Your task to perform on an android device: open app "Firefox Browser" Image 0: 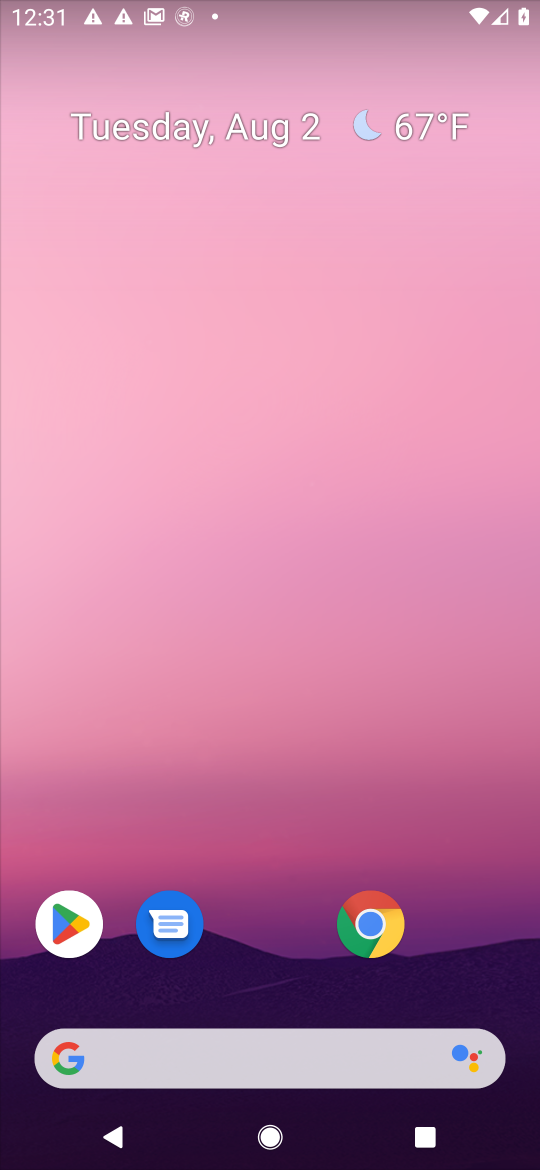
Step 0: press home button
Your task to perform on an android device: open app "Firefox Browser" Image 1: 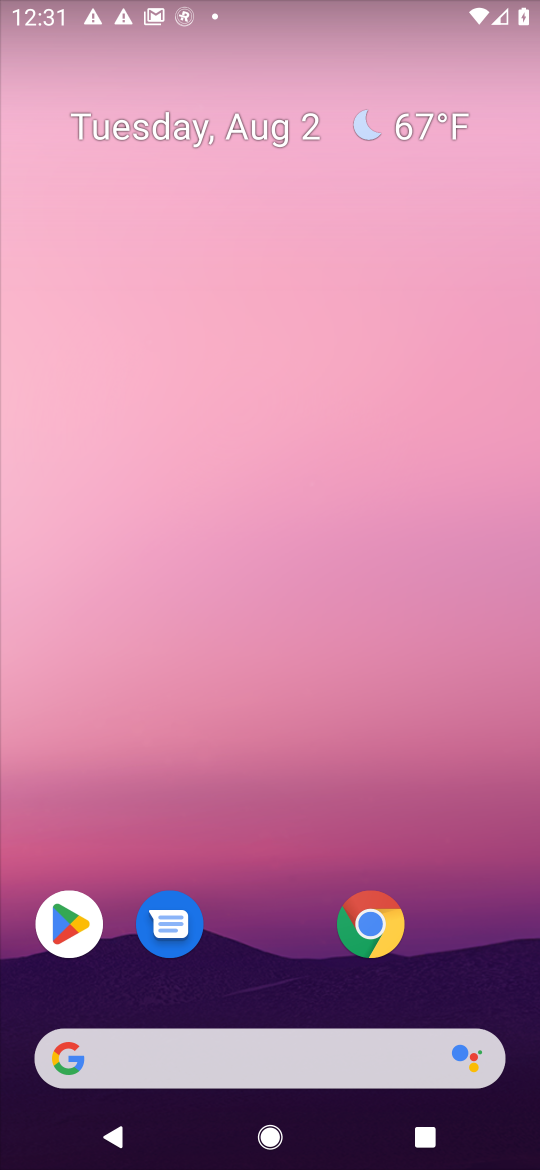
Step 1: drag from (280, 1014) to (270, 122)
Your task to perform on an android device: open app "Firefox Browser" Image 2: 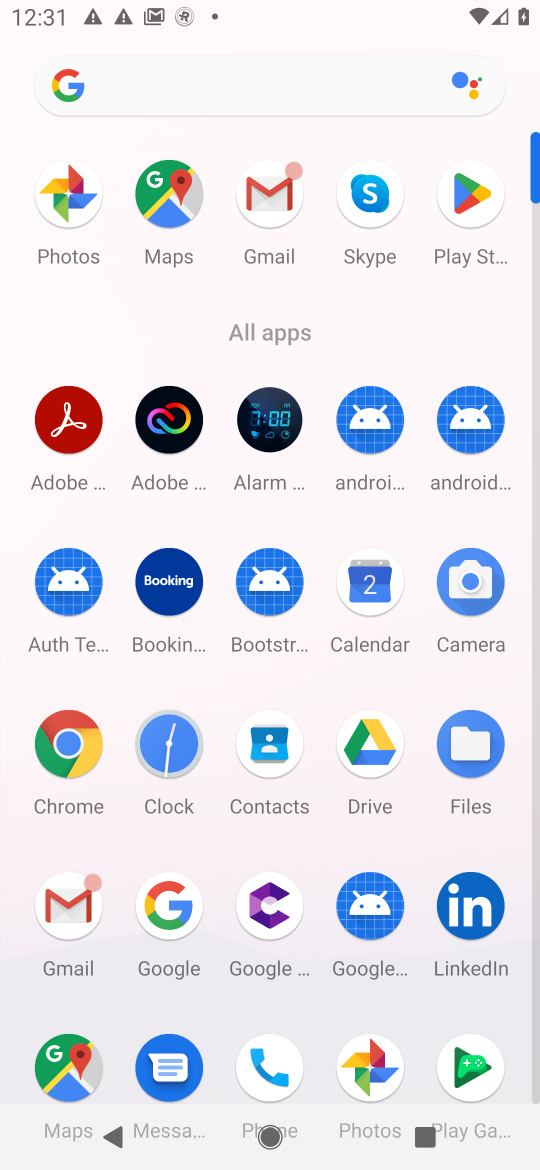
Step 2: click (466, 182)
Your task to perform on an android device: open app "Firefox Browser" Image 3: 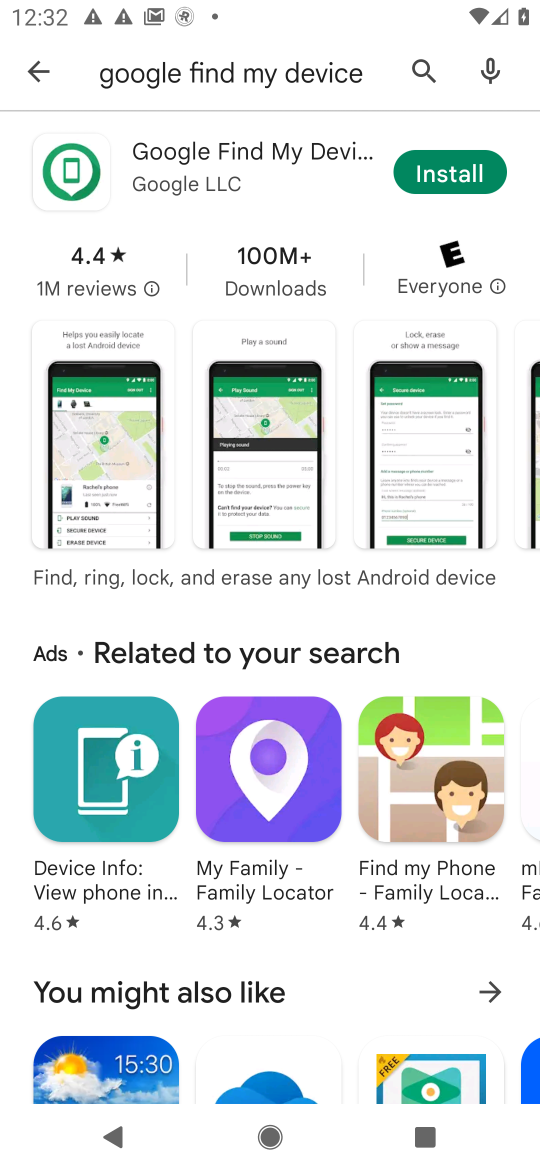
Step 3: click (409, 69)
Your task to perform on an android device: open app "Firefox Browser" Image 4: 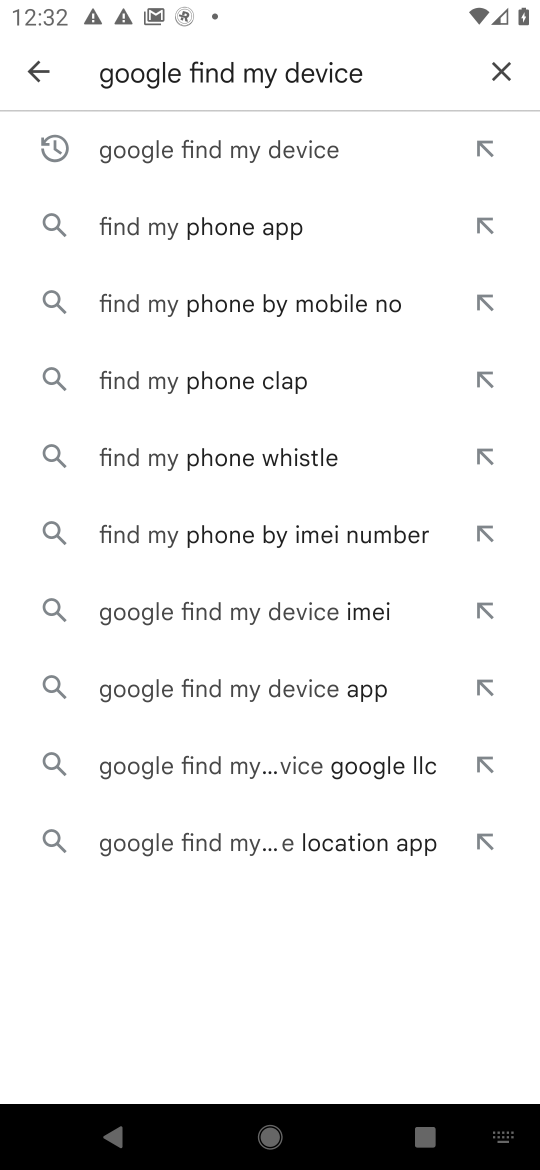
Step 4: click (506, 80)
Your task to perform on an android device: open app "Firefox Browser" Image 5: 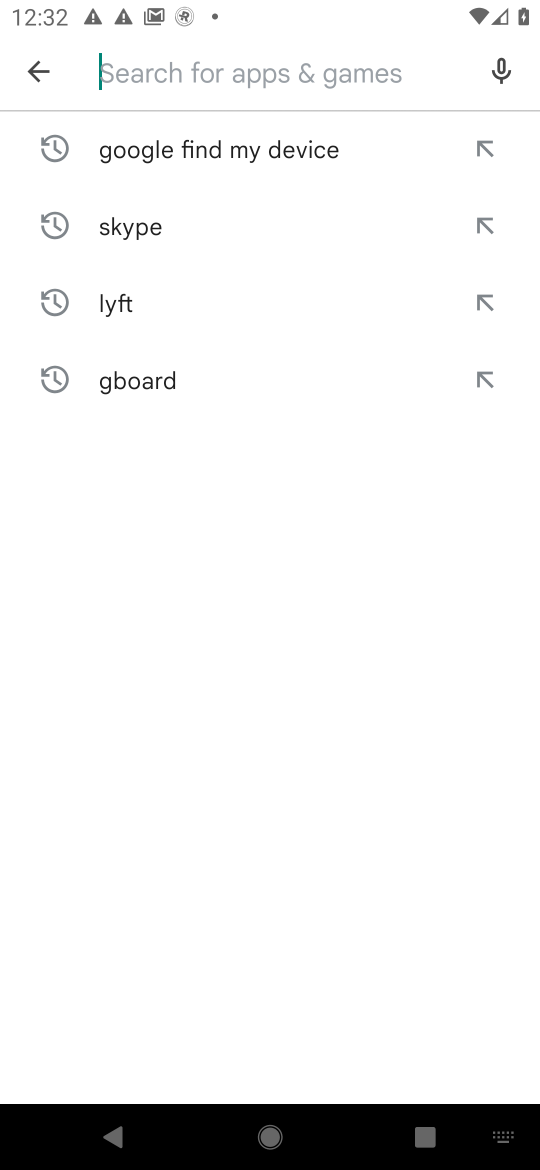
Step 5: type "Firefox Browser"
Your task to perform on an android device: open app "Firefox Browser" Image 6: 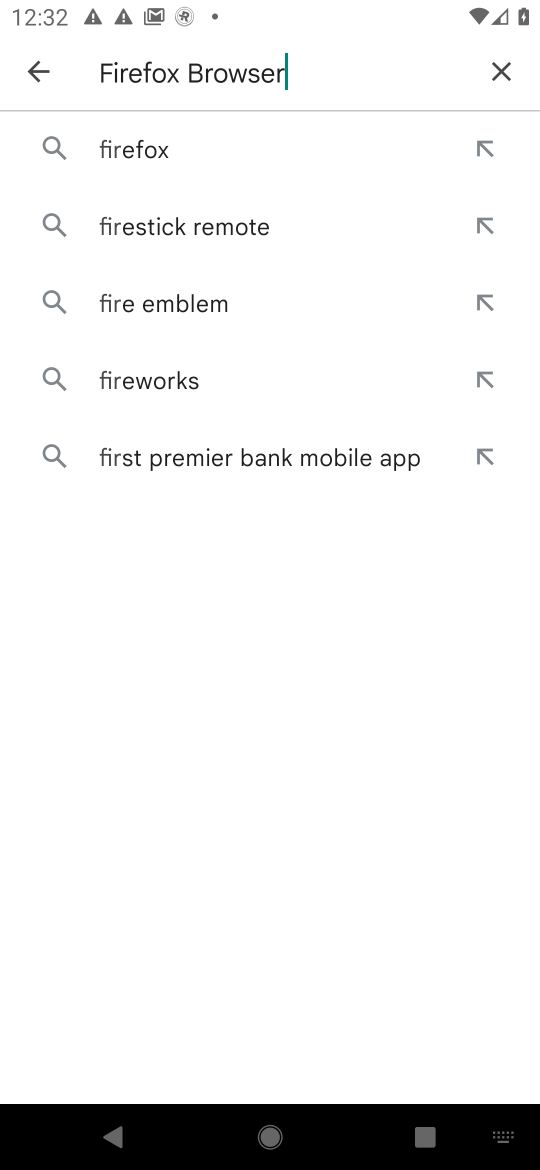
Step 6: type ""
Your task to perform on an android device: open app "Firefox Browser" Image 7: 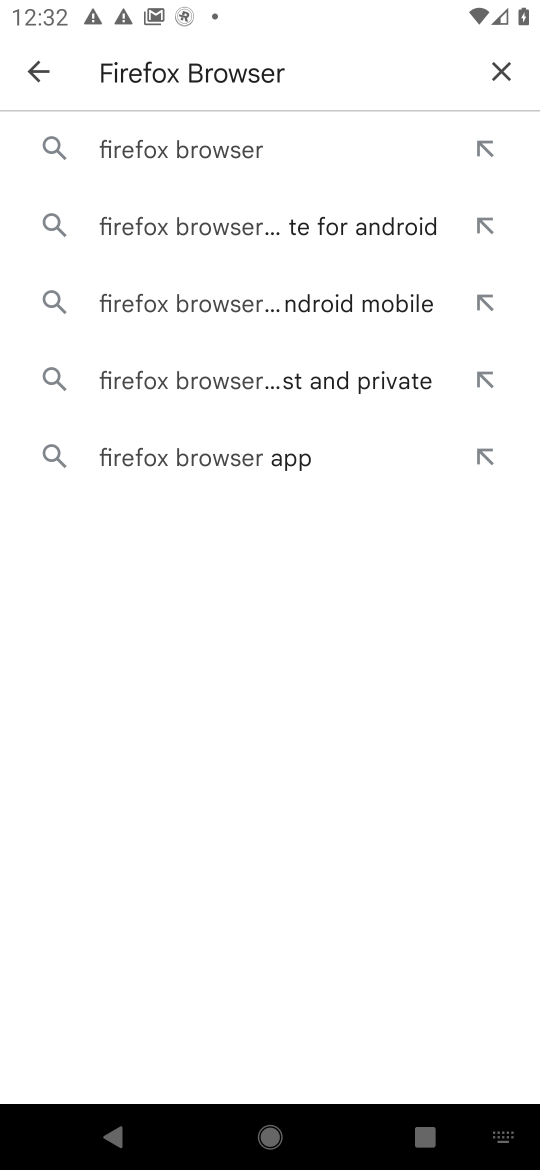
Step 7: click (282, 137)
Your task to perform on an android device: open app "Firefox Browser" Image 8: 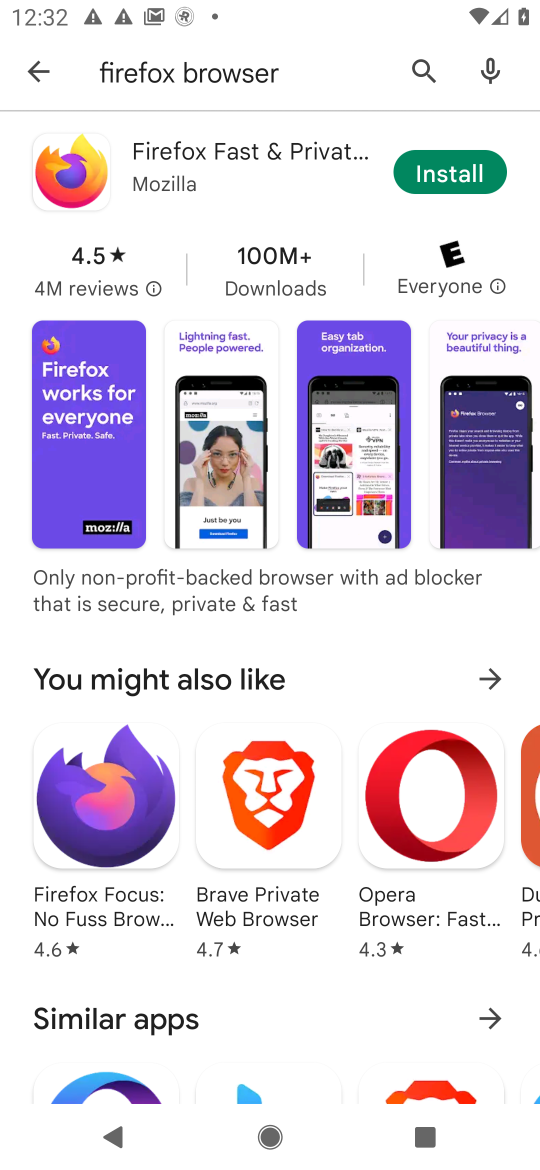
Step 8: task complete